Your task to perform on an android device: Search for macbook air on costco.com, select the first entry, and add it to the cart. Image 0: 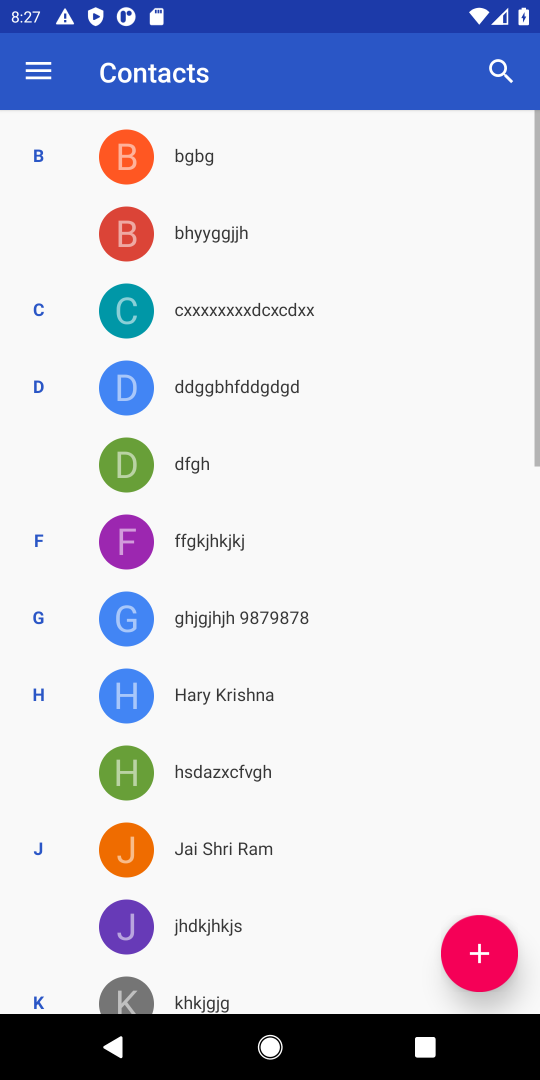
Step 0: press home button
Your task to perform on an android device: Search for macbook air on costco.com, select the first entry, and add it to the cart. Image 1: 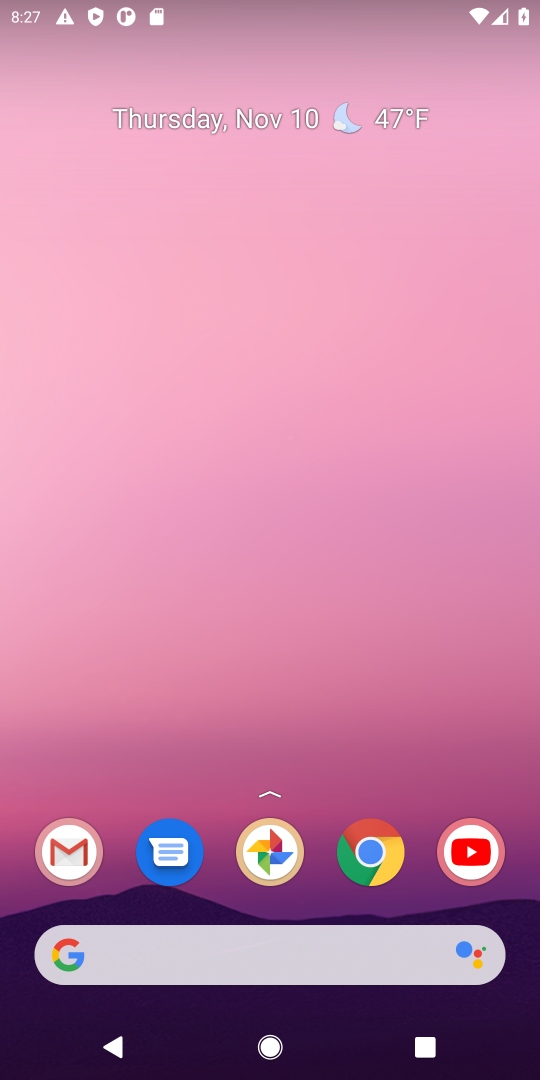
Step 1: click (369, 856)
Your task to perform on an android device: Search for macbook air on costco.com, select the first entry, and add it to the cart. Image 2: 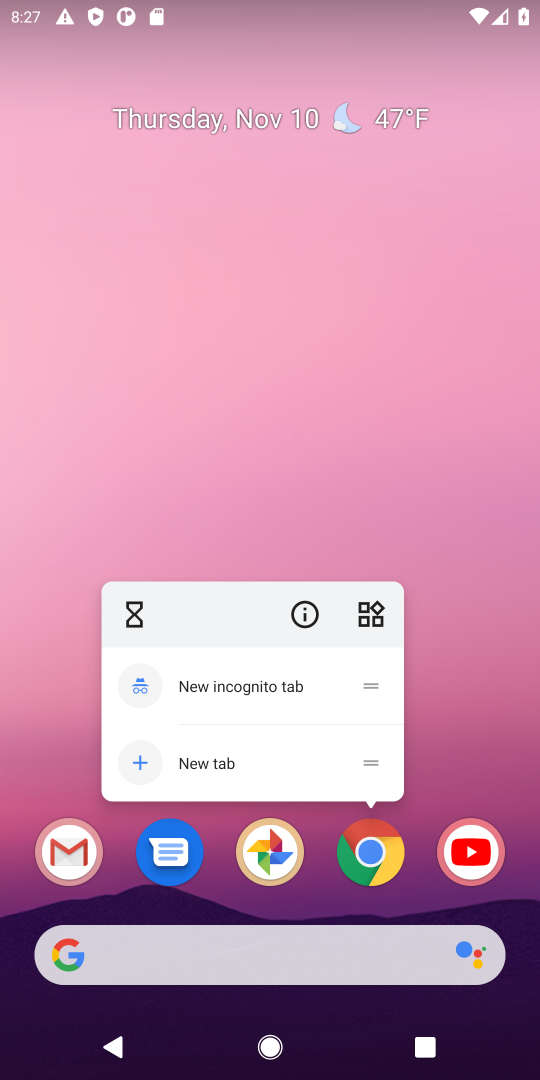
Step 2: click (221, 891)
Your task to perform on an android device: Search for macbook air on costco.com, select the first entry, and add it to the cart. Image 3: 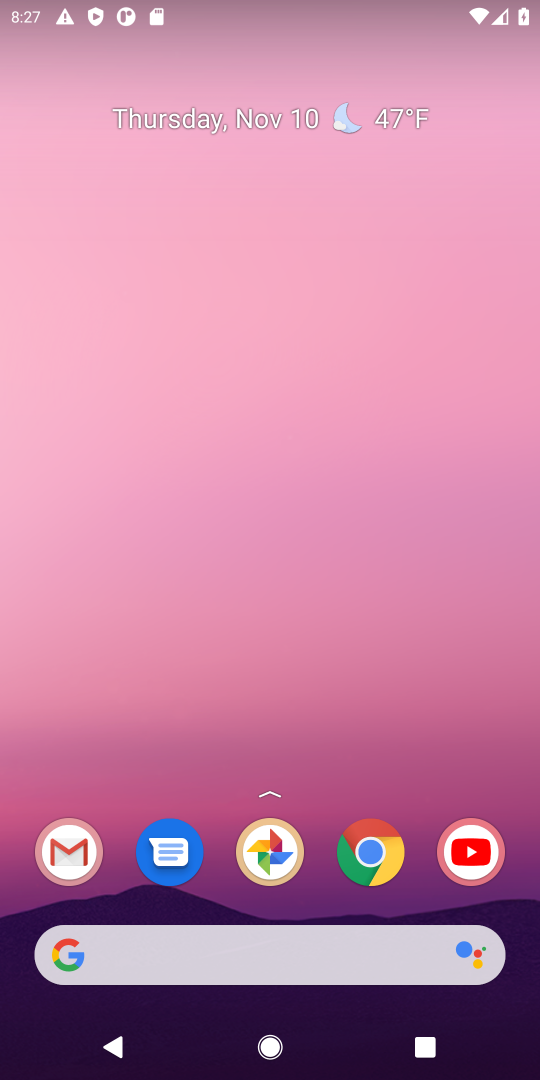
Step 3: click (367, 855)
Your task to perform on an android device: Search for macbook air on costco.com, select the first entry, and add it to the cart. Image 4: 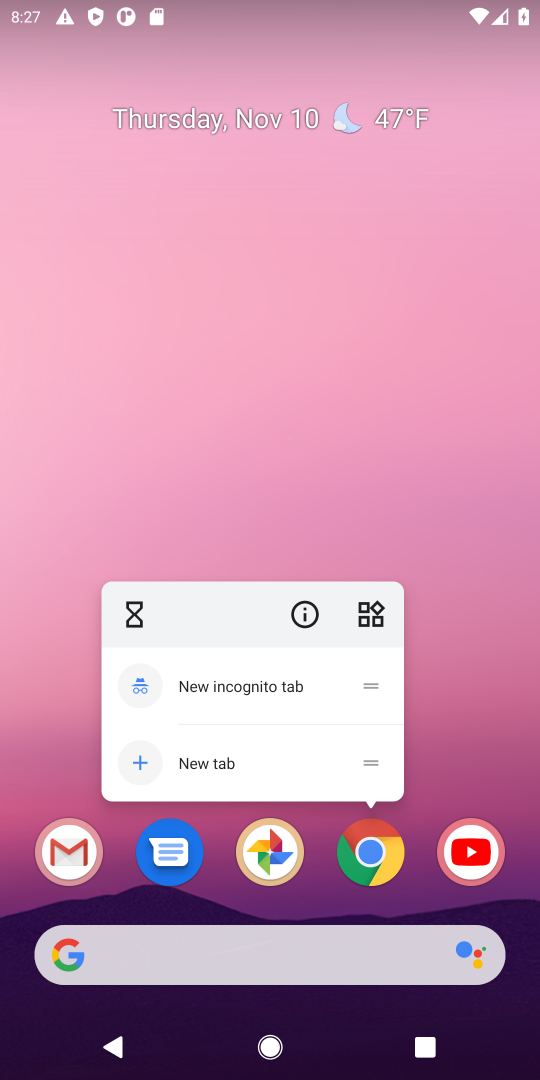
Step 4: click (367, 858)
Your task to perform on an android device: Search for macbook air on costco.com, select the first entry, and add it to the cart. Image 5: 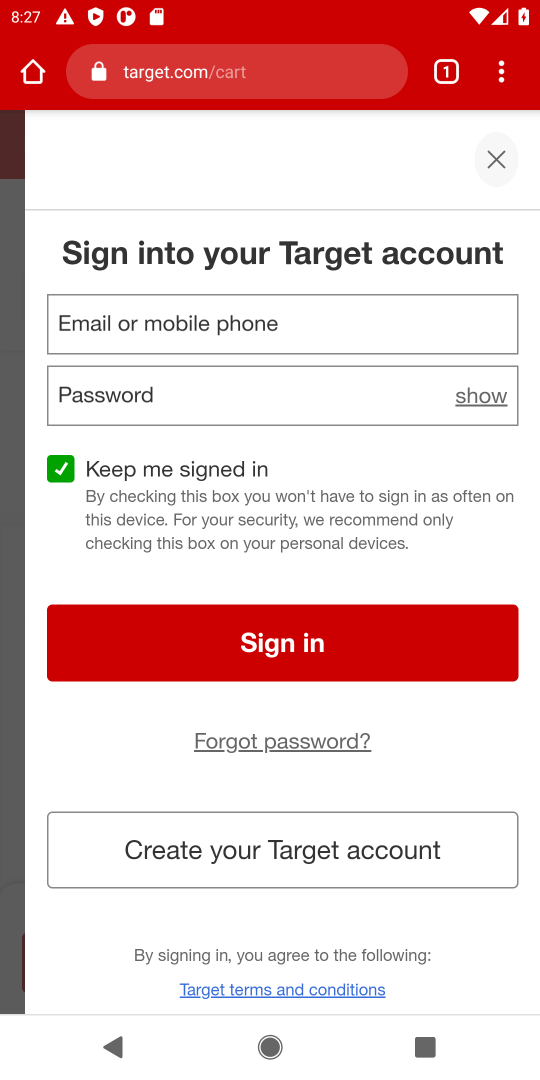
Step 5: click (256, 71)
Your task to perform on an android device: Search for macbook air on costco.com, select the first entry, and add it to the cart. Image 6: 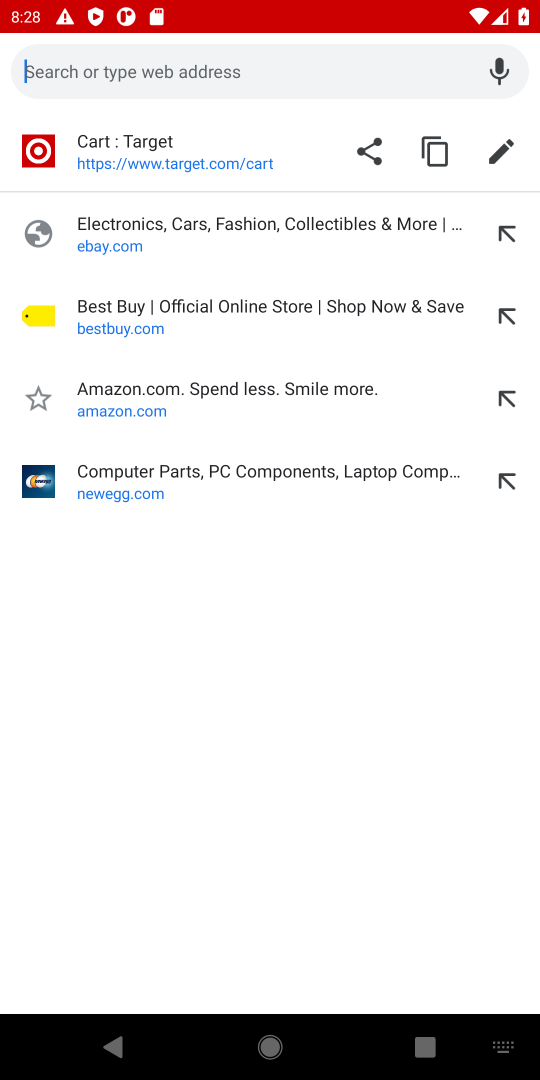
Step 6: type "costco.com"
Your task to perform on an android device: Search for macbook air on costco.com, select the first entry, and add it to the cart. Image 7: 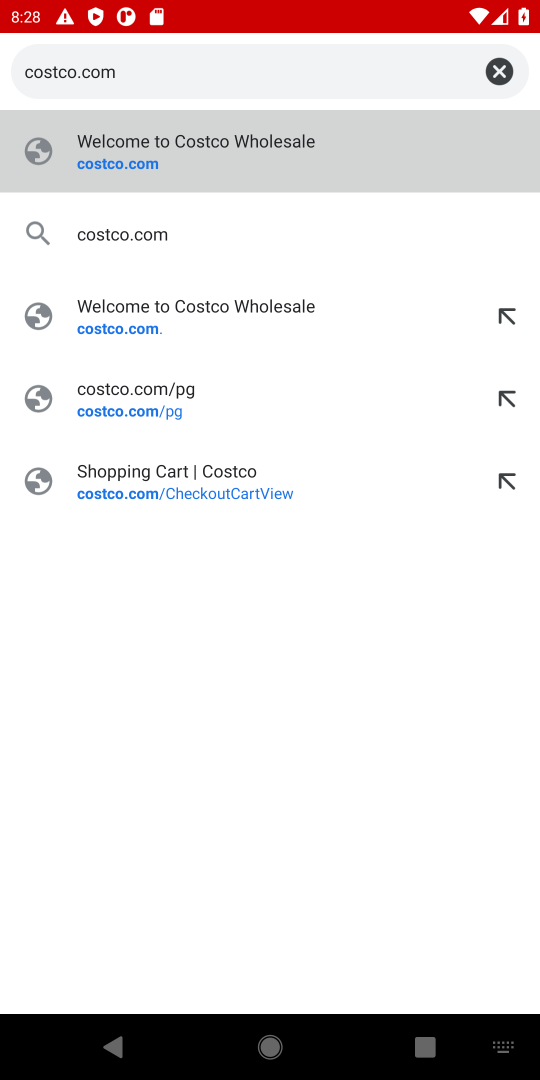
Step 7: press enter
Your task to perform on an android device: Search for macbook air on costco.com, select the first entry, and add it to the cart. Image 8: 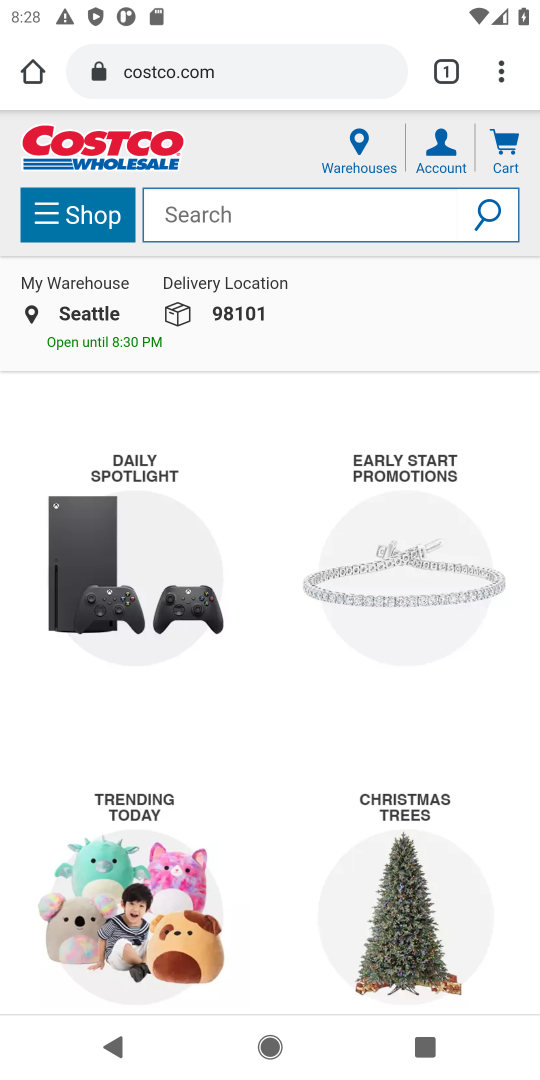
Step 8: click (336, 213)
Your task to perform on an android device: Search for macbook air on costco.com, select the first entry, and add it to the cart. Image 9: 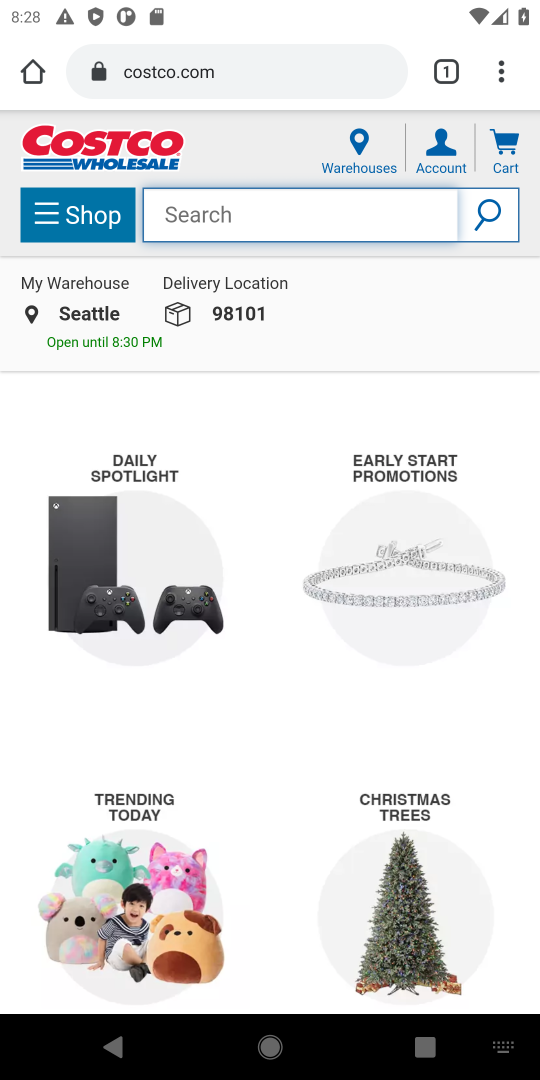
Step 9: type "macbook air"
Your task to perform on an android device: Search for macbook air on costco.com, select the first entry, and add it to the cart. Image 10: 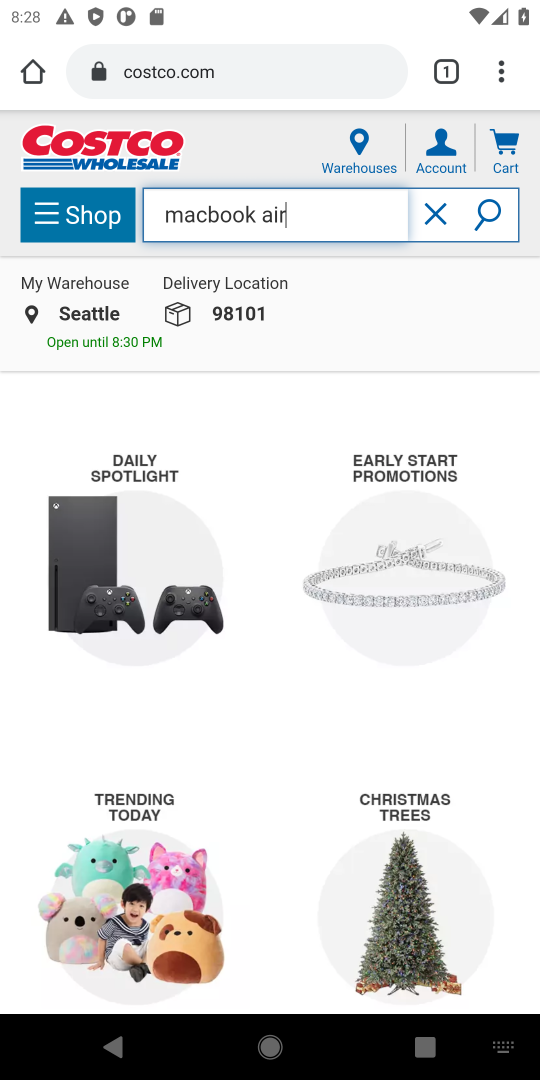
Step 10: press enter
Your task to perform on an android device: Search for macbook air on costco.com, select the first entry, and add it to the cart. Image 11: 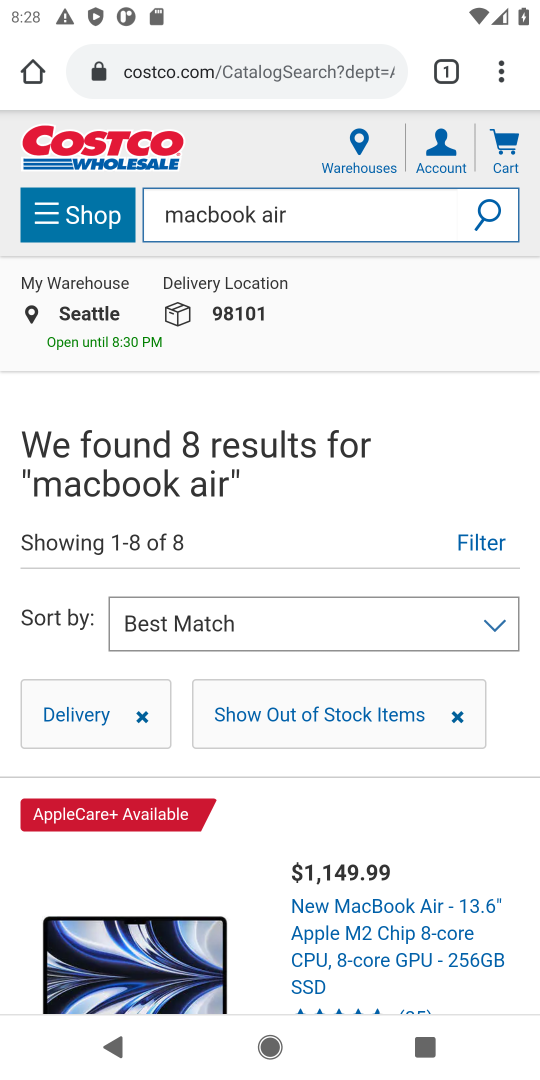
Step 11: drag from (201, 978) to (358, 559)
Your task to perform on an android device: Search for macbook air on costco.com, select the first entry, and add it to the cart. Image 12: 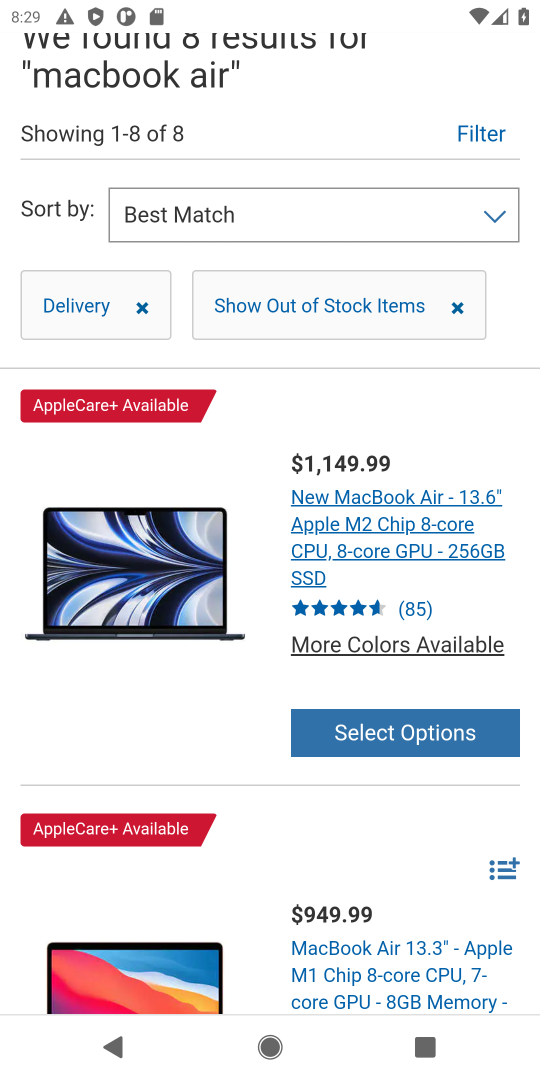
Step 12: click (413, 539)
Your task to perform on an android device: Search for macbook air on costco.com, select the first entry, and add it to the cart. Image 13: 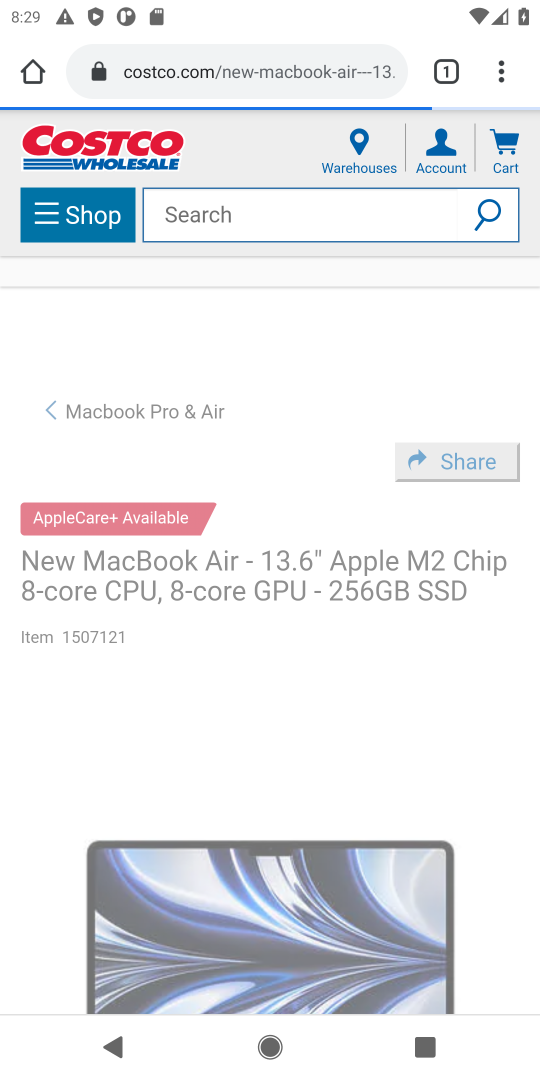
Step 13: drag from (205, 897) to (429, 141)
Your task to perform on an android device: Search for macbook air on costco.com, select the first entry, and add it to the cart. Image 14: 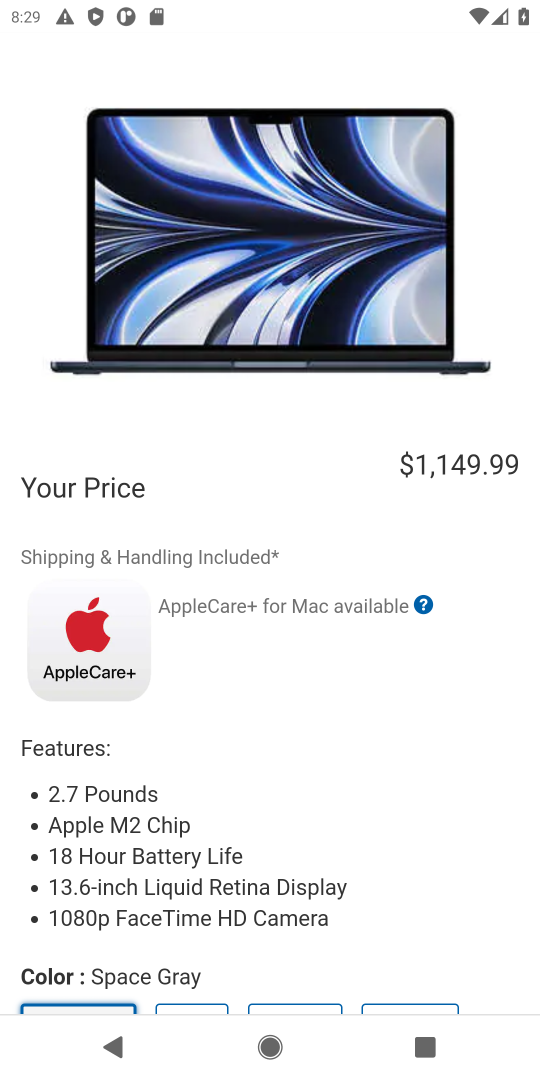
Step 14: drag from (278, 803) to (461, 122)
Your task to perform on an android device: Search for macbook air on costco.com, select the first entry, and add it to the cart. Image 15: 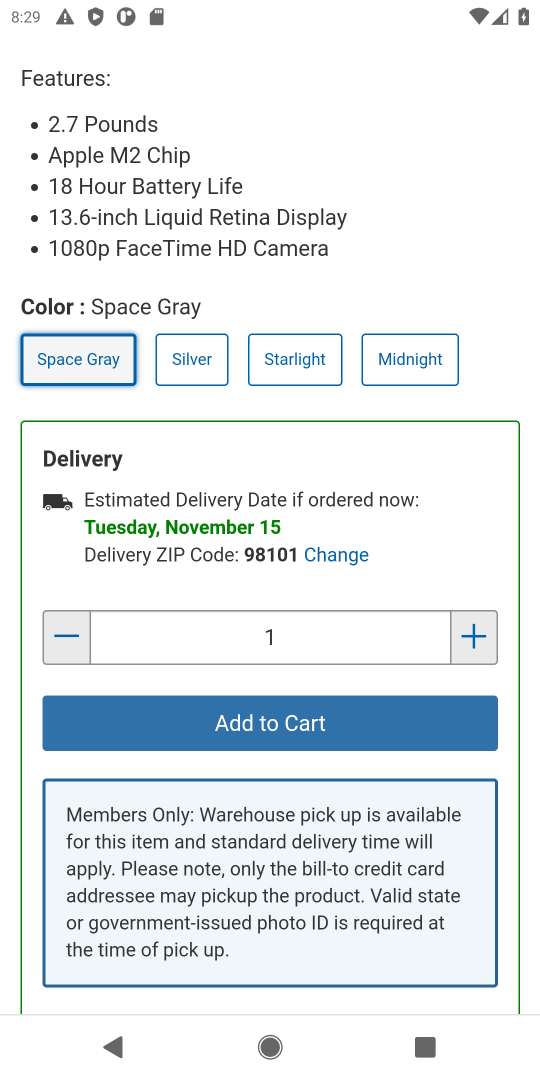
Step 15: click (286, 726)
Your task to perform on an android device: Search for macbook air on costco.com, select the first entry, and add it to the cart. Image 16: 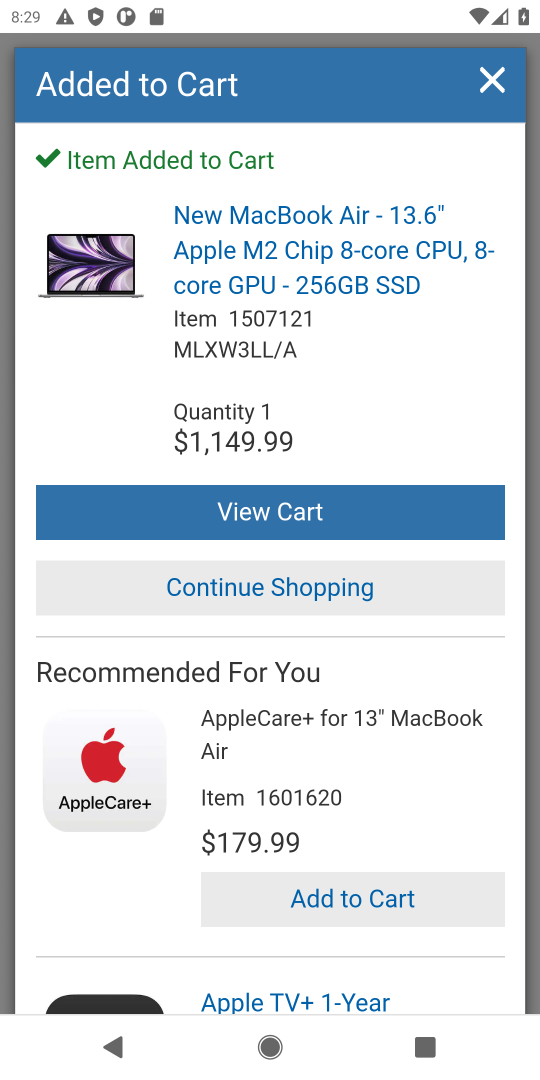
Step 16: click (259, 508)
Your task to perform on an android device: Search for macbook air on costco.com, select the first entry, and add it to the cart. Image 17: 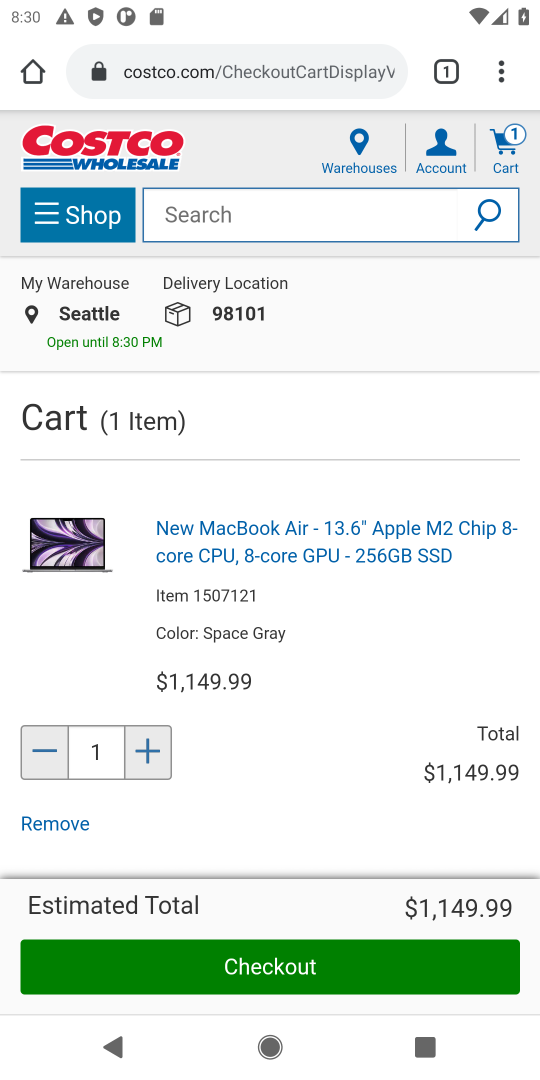
Step 17: task complete